Your task to perform on an android device: Open wifi settings Image 0: 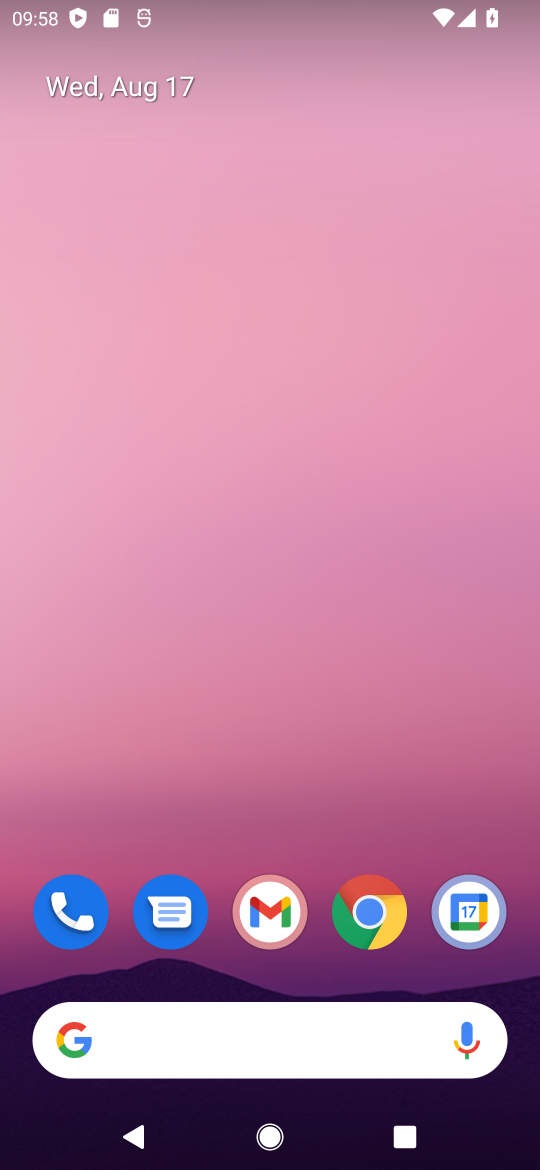
Step 0: drag from (354, 979) to (370, 135)
Your task to perform on an android device: Open wifi settings Image 1: 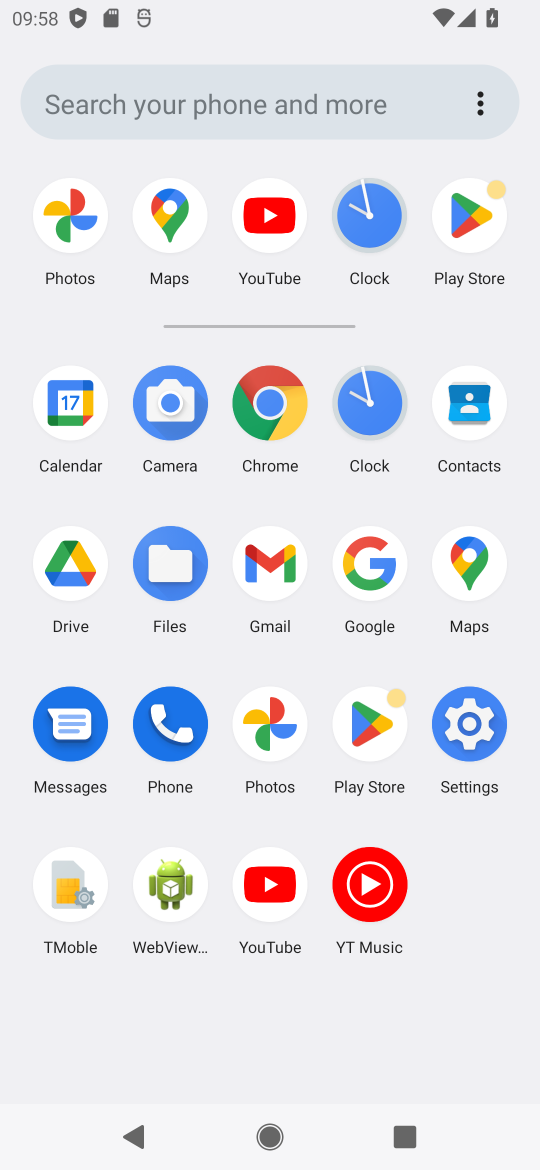
Step 1: click (459, 722)
Your task to perform on an android device: Open wifi settings Image 2: 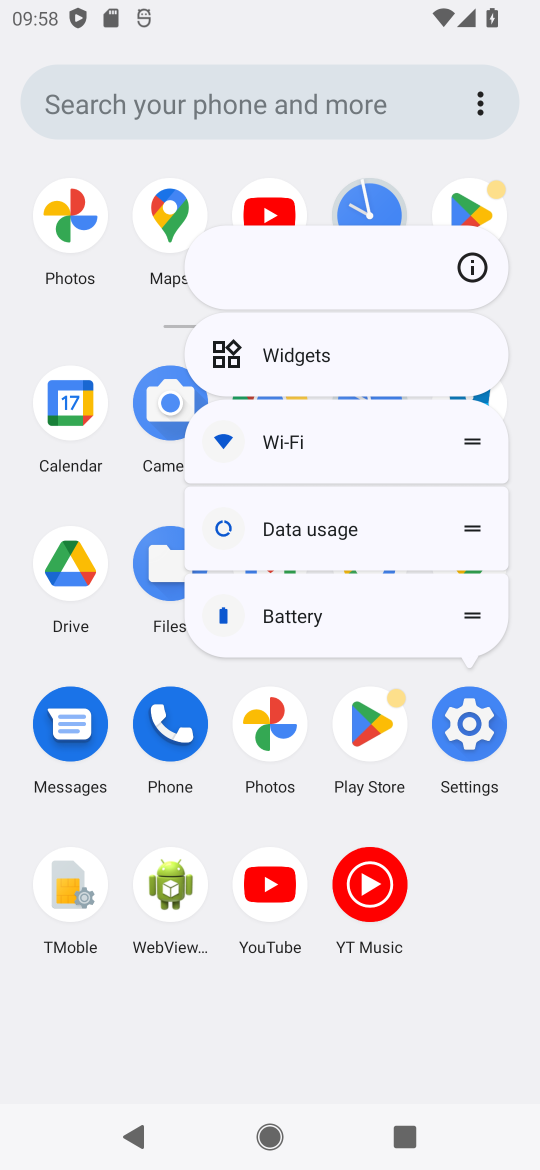
Step 2: click (475, 730)
Your task to perform on an android device: Open wifi settings Image 3: 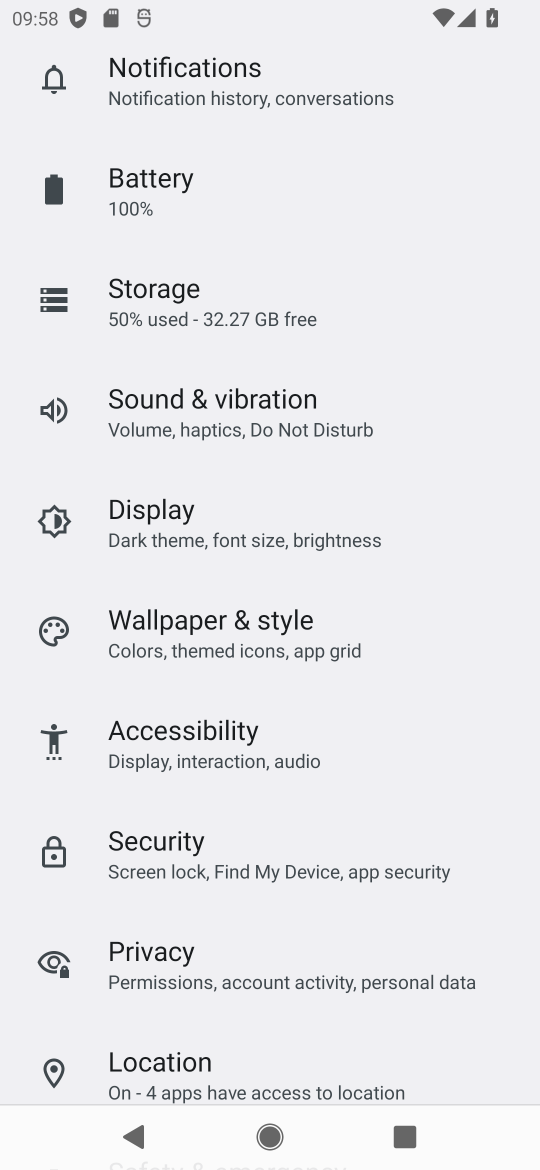
Step 3: drag from (193, 170) to (253, 793)
Your task to perform on an android device: Open wifi settings Image 4: 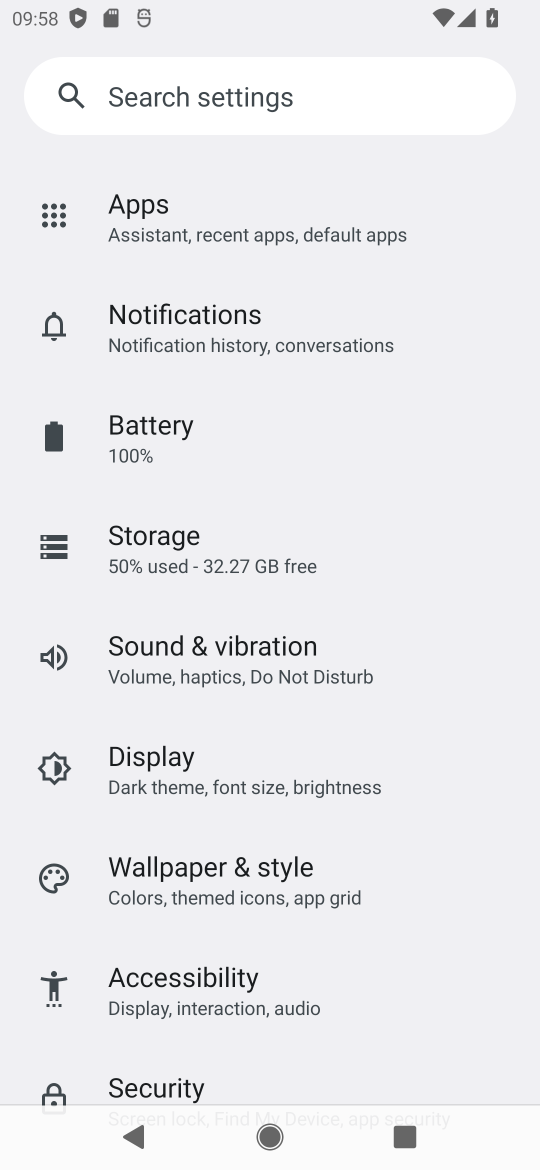
Step 4: drag from (179, 178) to (152, 725)
Your task to perform on an android device: Open wifi settings Image 5: 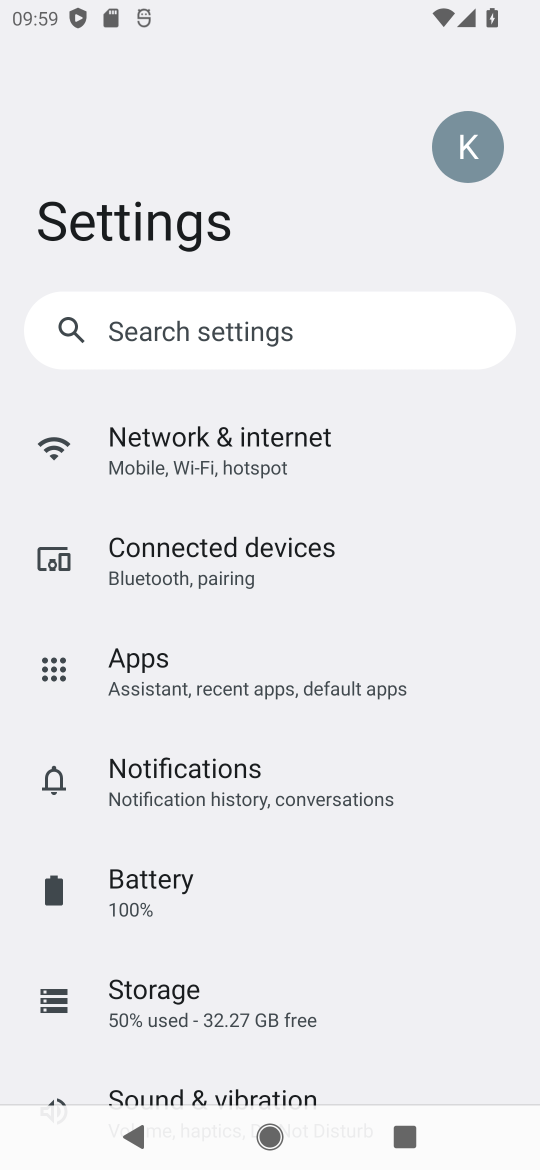
Step 5: click (188, 464)
Your task to perform on an android device: Open wifi settings Image 6: 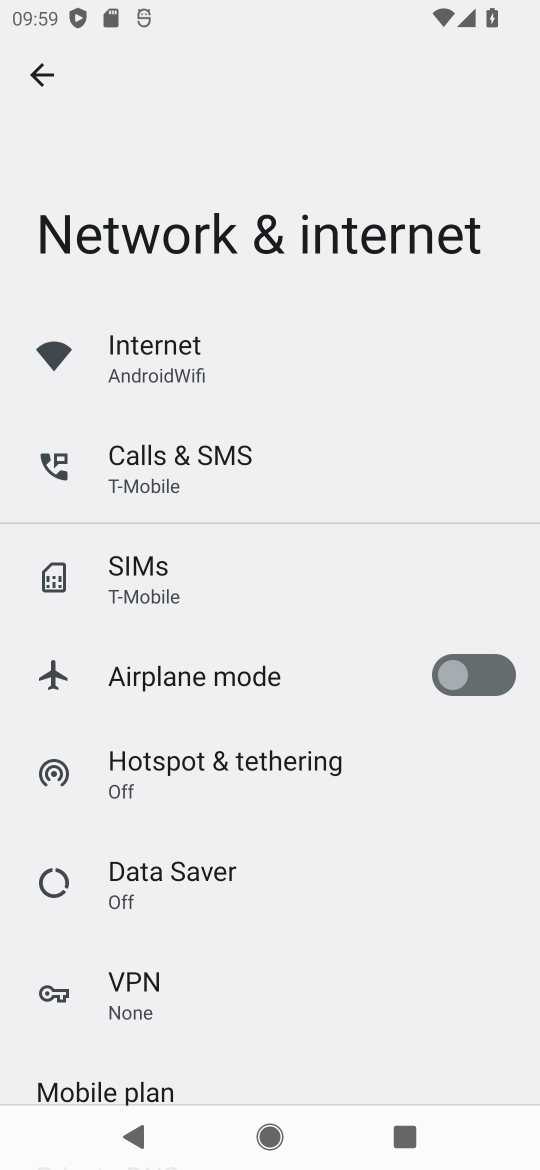
Step 6: click (142, 374)
Your task to perform on an android device: Open wifi settings Image 7: 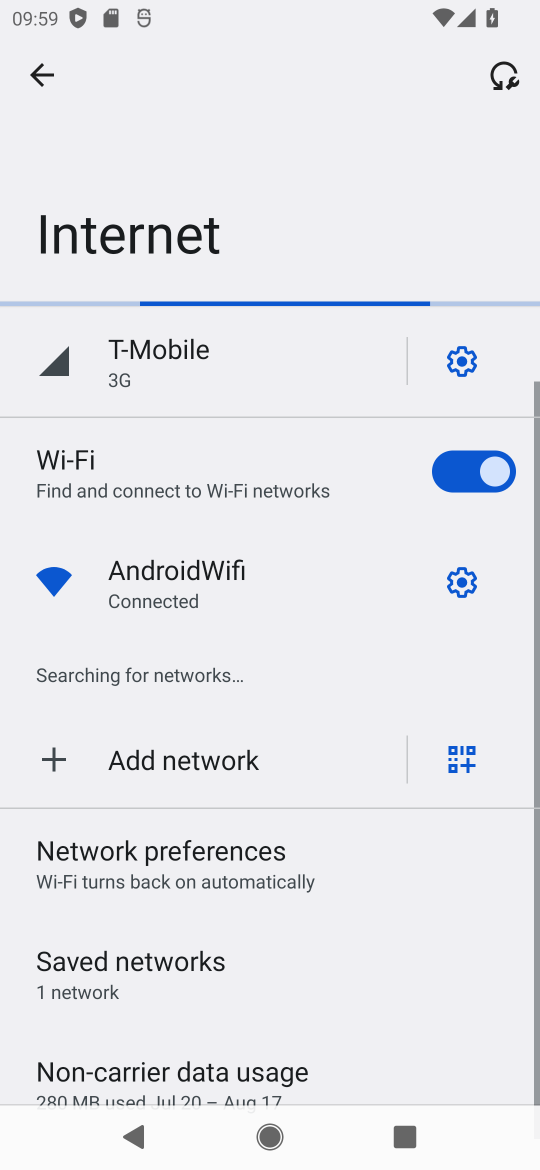
Step 7: click (449, 565)
Your task to perform on an android device: Open wifi settings Image 8: 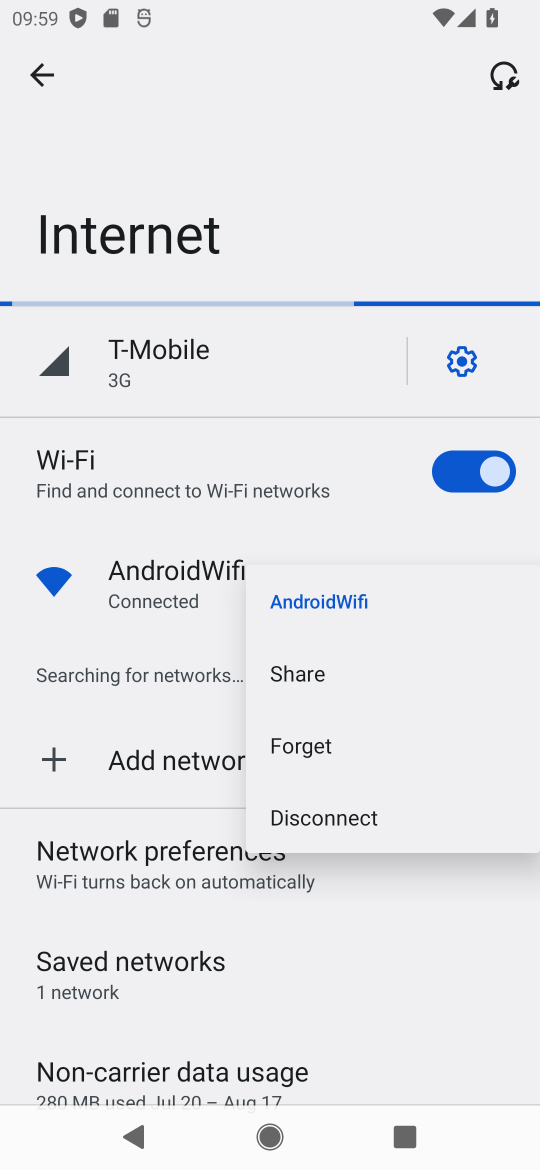
Step 8: click (261, 507)
Your task to perform on an android device: Open wifi settings Image 9: 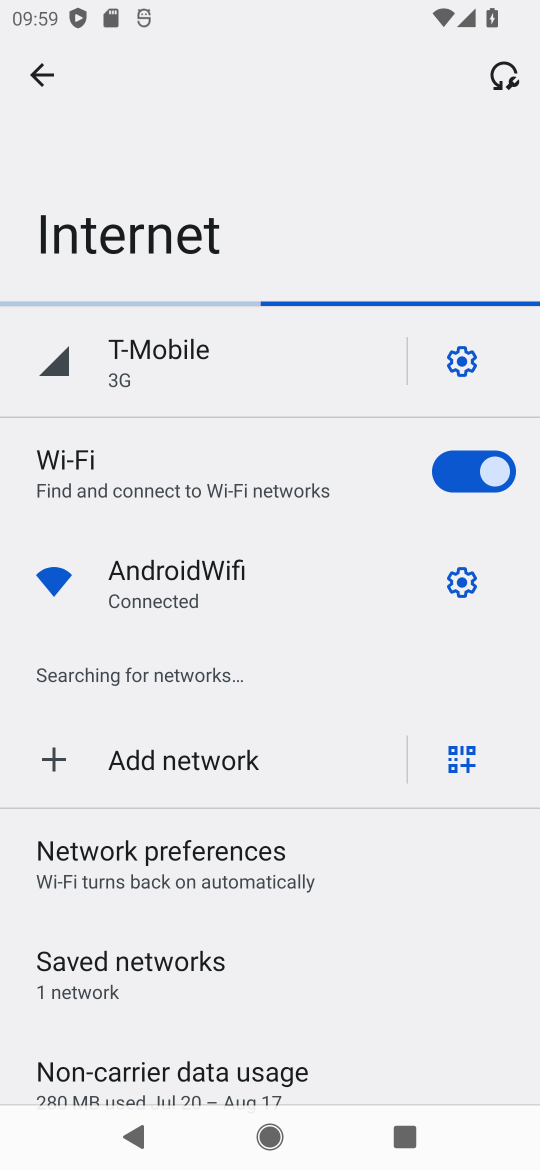
Step 9: click (476, 580)
Your task to perform on an android device: Open wifi settings Image 10: 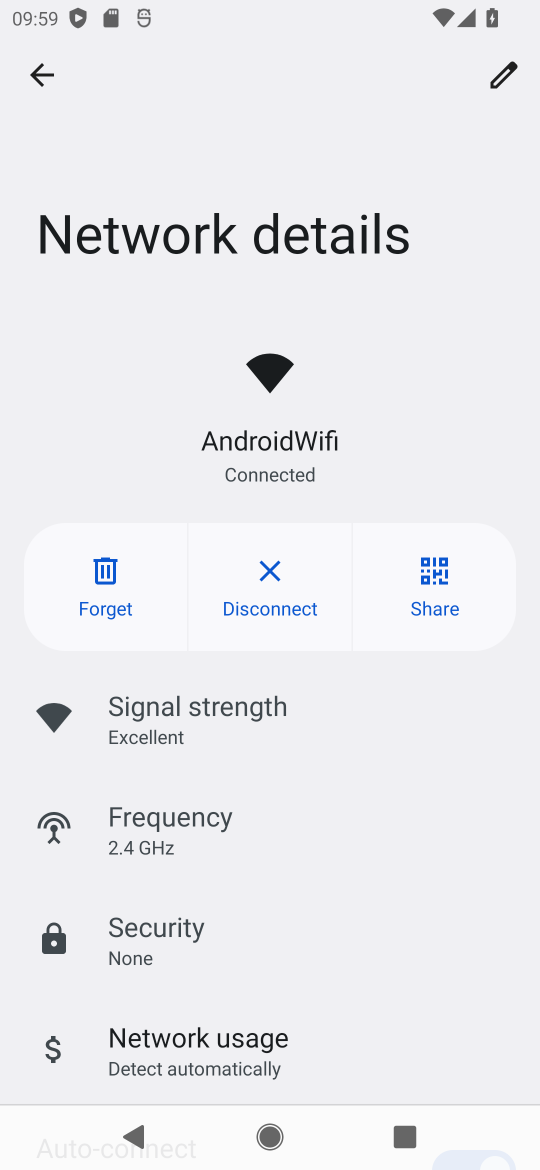
Step 10: task complete